Your task to perform on an android device: install app "Chime – Mobile Banking" Image 0: 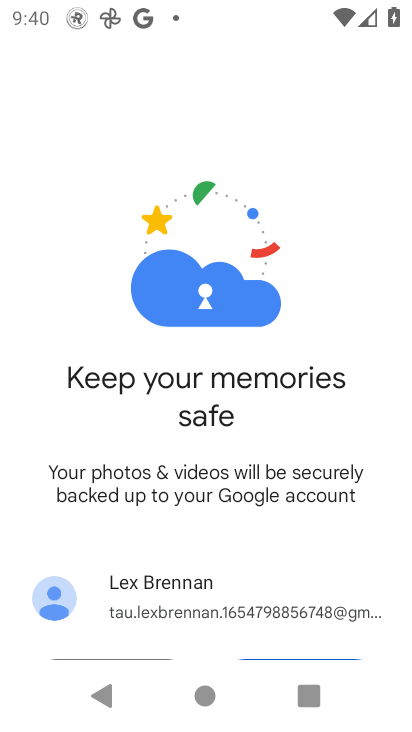
Step 0: press back button
Your task to perform on an android device: install app "Chime – Mobile Banking" Image 1: 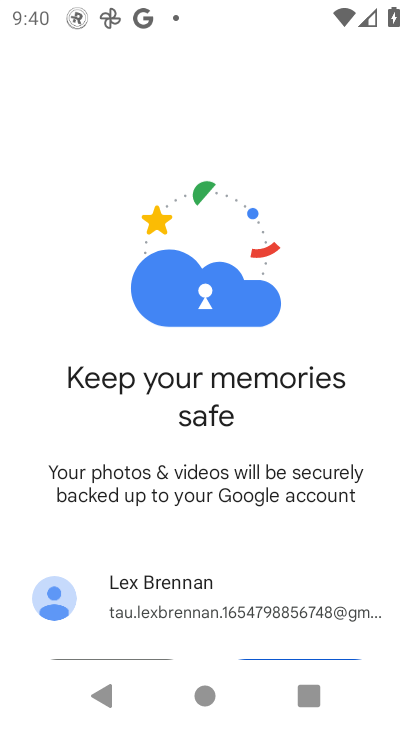
Step 1: press back button
Your task to perform on an android device: install app "Chime – Mobile Banking" Image 2: 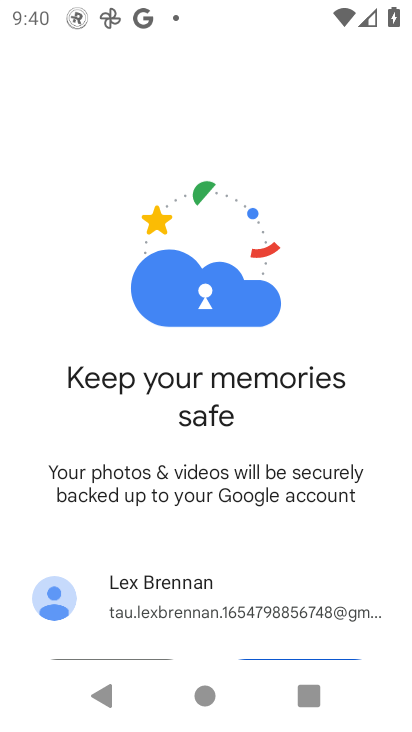
Step 2: press back button
Your task to perform on an android device: install app "Chime – Mobile Banking" Image 3: 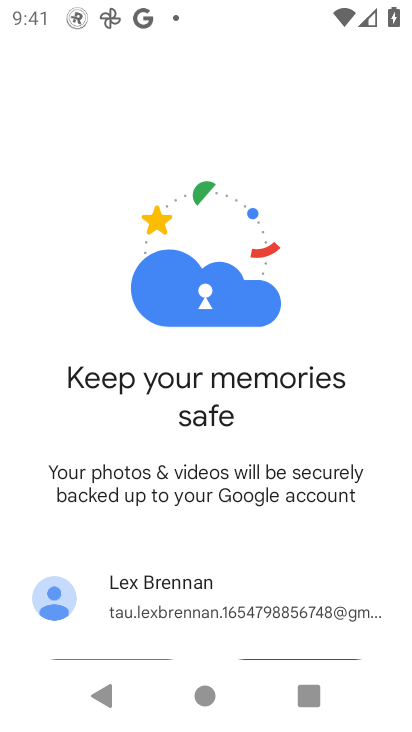
Step 3: press home button
Your task to perform on an android device: install app "Chime – Mobile Banking" Image 4: 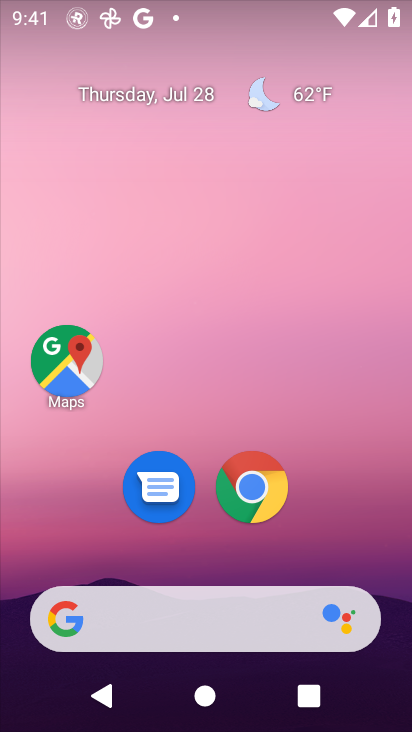
Step 4: drag from (235, 676) to (217, 275)
Your task to perform on an android device: install app "Chime – Mobile Banking" Image 5: 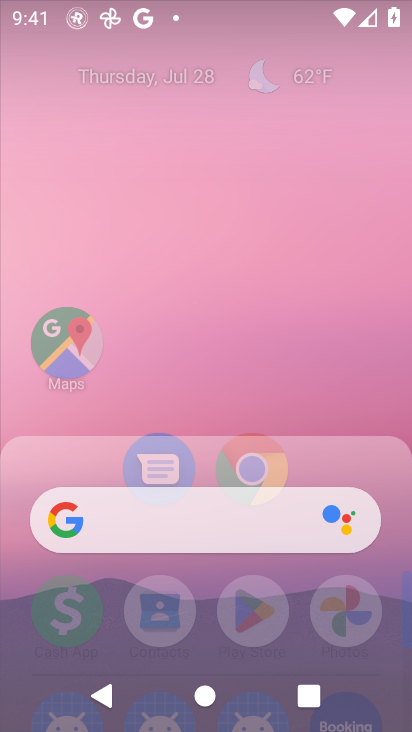
Step 5: drag from (221, 494) to (221, 266)
Your task to perform on an android device: install app "Chime – Mobile Banking" Image 6: 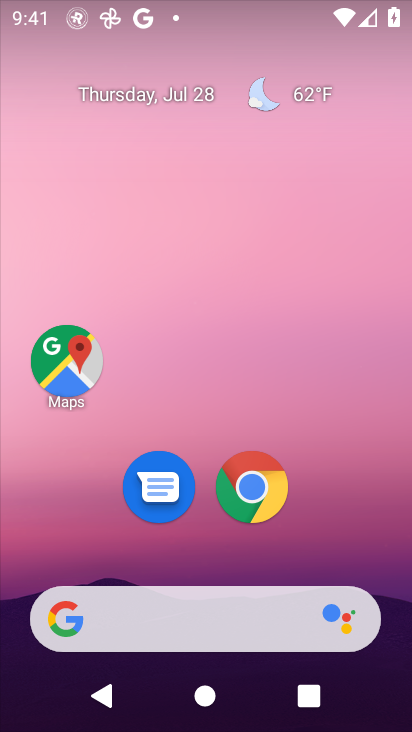
Step 6: drag from (225, 533) to (216, 220)
Your task to perform on an android device: install app "Chime – Mobile Banking" Image 7: 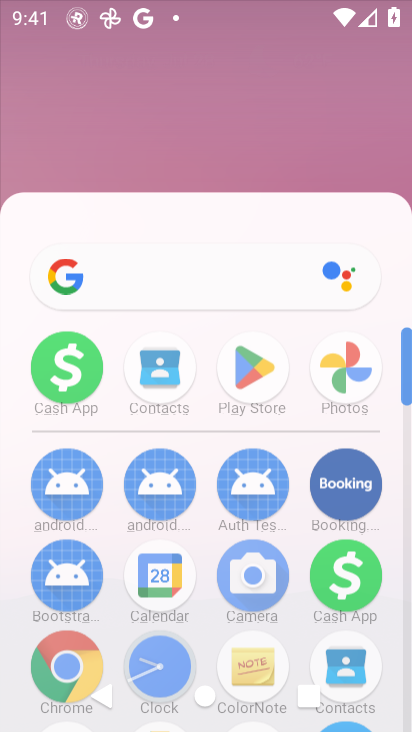
Step 7: drag from (238, 666) to (206, 295)
Your task to perform on an android device: install app "Chime – Mobile Banking" Image 8: 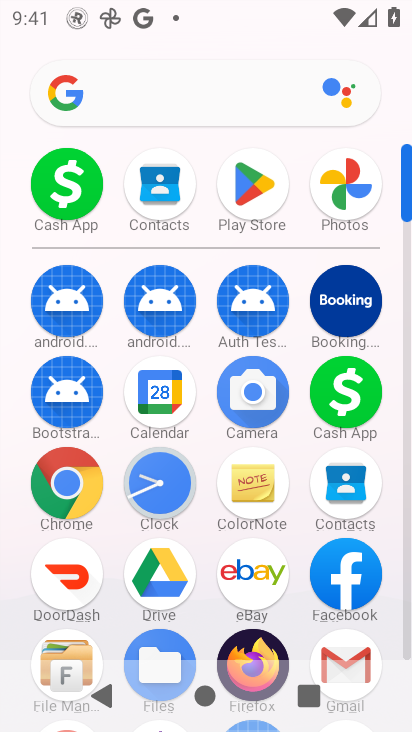
Step 8: click (247, 184)
Your task to perform on an android device: install app "Chime – Mobile Banking" Image 9: 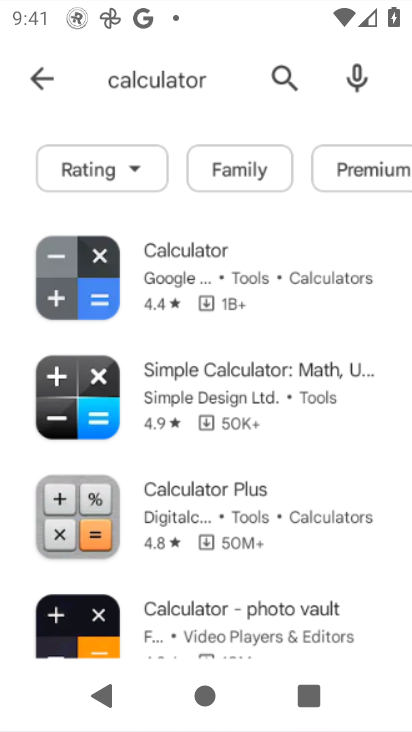
Step 9: click (249, 182)
Your task to perform on an android device: install app "Chime – Mobile Banking" Image 10: 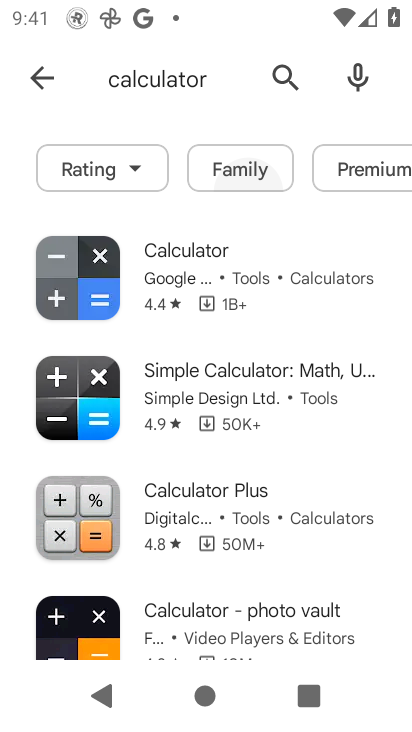
Step 10: click (249, 182)
Your task to perform on an android device: install app "Chime – Mobile Banking" Image 11: 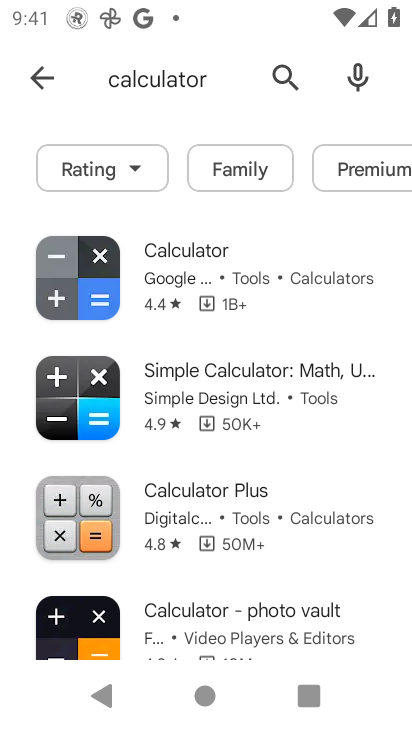
Step 11: click (42, 75)
Your task to perform on an android device: install app "Chime – Mobile Banking" Image 12: 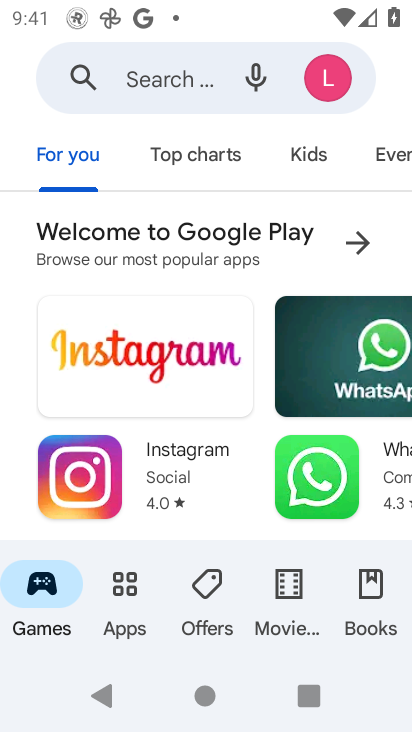
Step 12: click (143, 71)
Your task to perform on an android device: install app "Chime – Mobile Banking" Image 13: 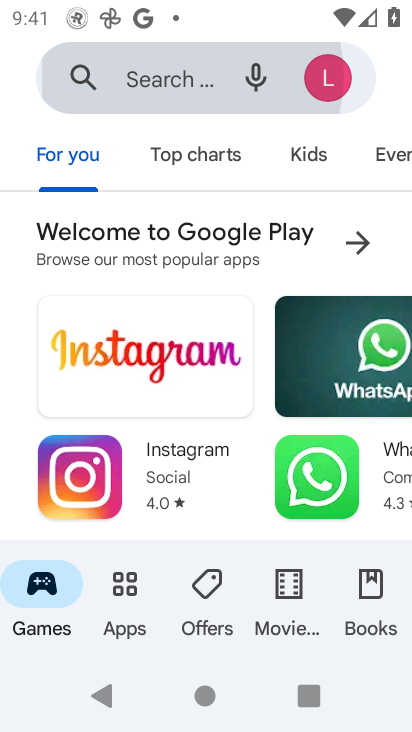
Step 13: click (143, 71)
Your task to perform on an android device: install app "Chime – Mobile Banking" Image 14: 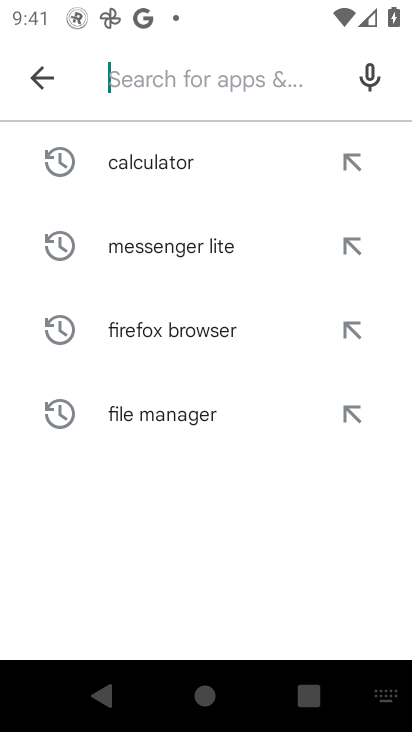
Step 14: type "Chime - Mobile Banking"
Your task to perform on an android device: install app "Chime – Mobile Banking" Image 15: 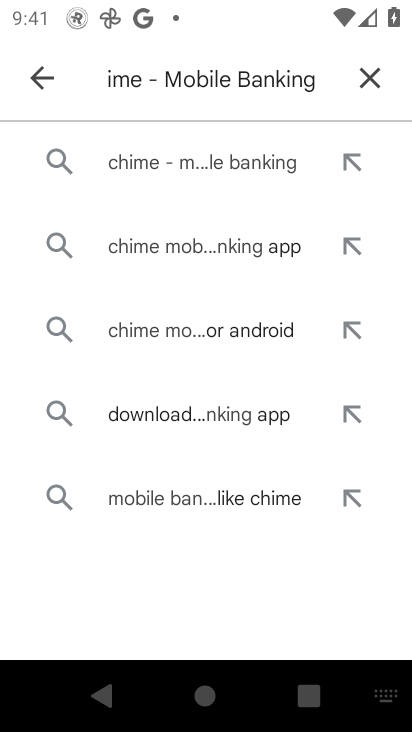
Step 15: click (255, 156)
Your task to perform on an android device: install app "Chime – Mobile Banking" Image 16: 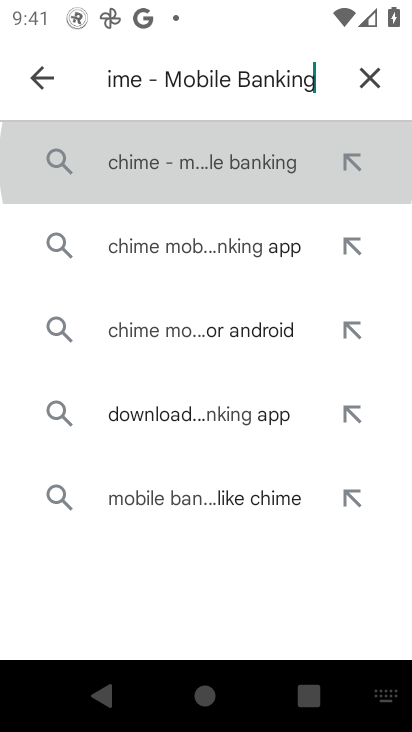
Step 16: click (251, 158)
Your task to perform on an android device: install app "Chime – Mobile Banking" Image 17: 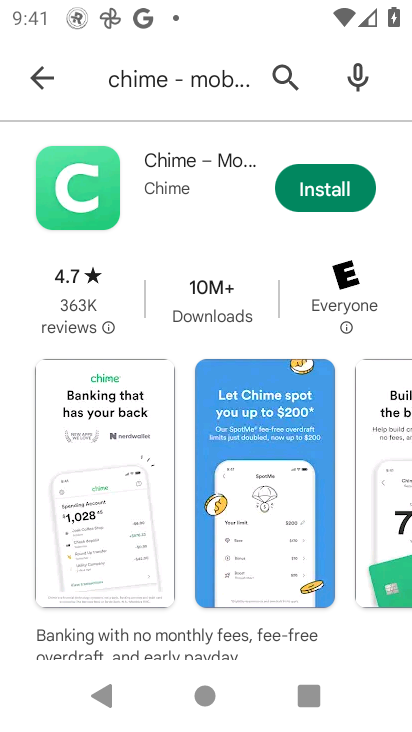
Step 17: click (334, 193)
Your task to perform on an android device: install app "Chime – Mobile Banking" Image 18: 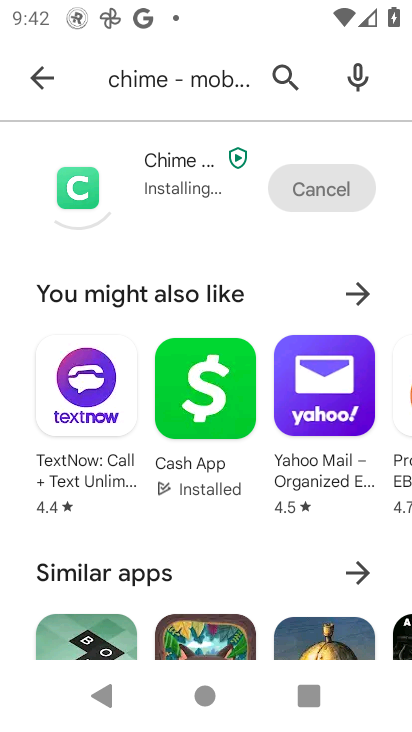
Step 18: task complete